Your task to perform on an android device: Open notification settings Image 0: 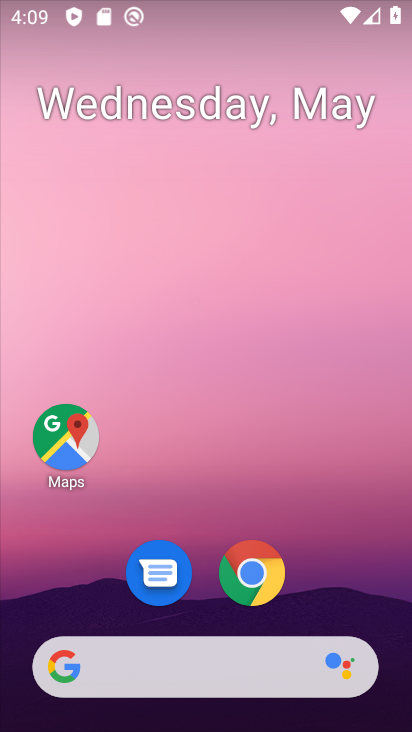
Step 0: drag from (270, 696) to (206, 131)
Your task to perform on an android device: Open notification settings Image 1: 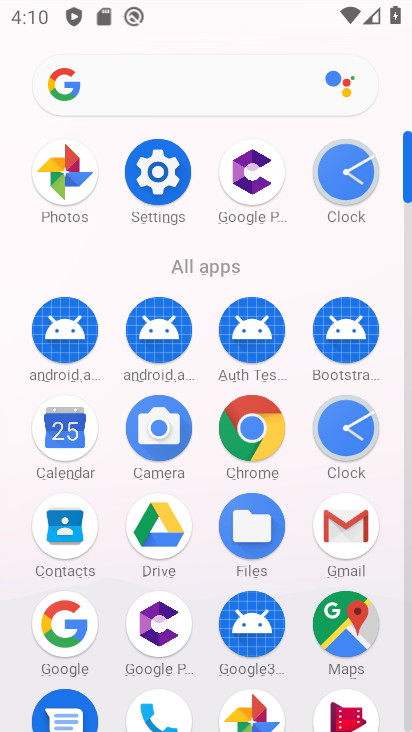
Step 1: click (152, 181)
Your task to perform on an android device: Open notification settings Image 2: 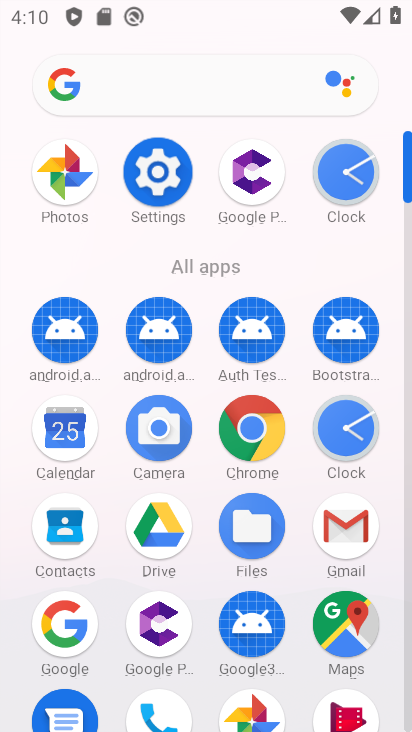
Step 2: click (154, 179)
Your task to perform on an android device: Open notification settings Image 3: 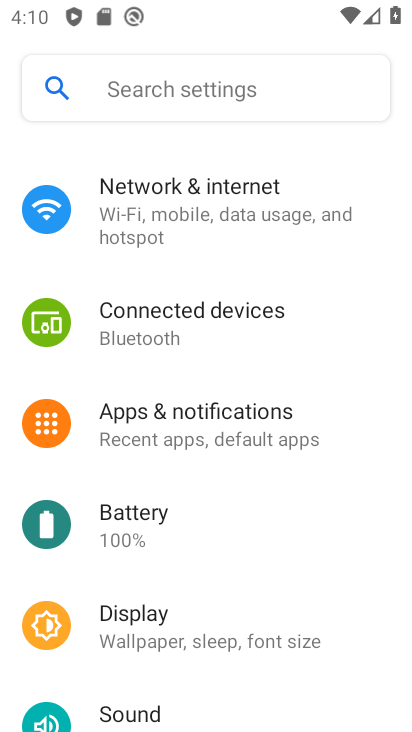
Step 3: click (157, 178)
Your task to perform on an android device: Open notification settings Image 4: 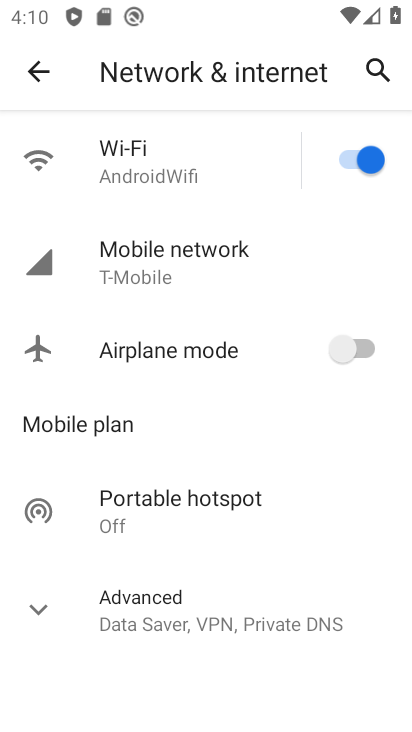
Step 4: click (30, 68)
Your task to perform on an android device: Open notification settings Image 5: 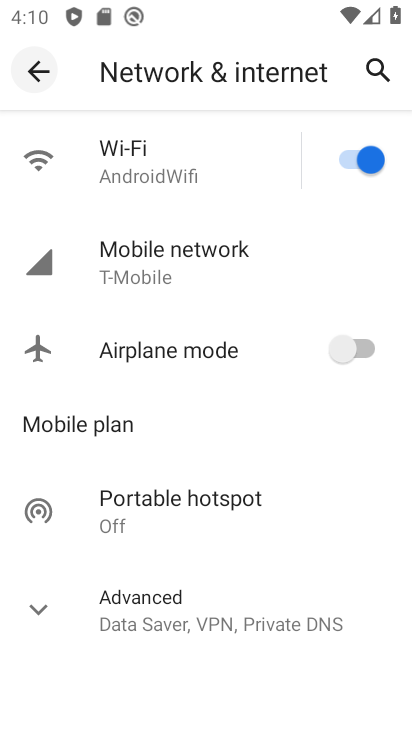
Step 5: click (33, 67)
Your task to perform on an android device: Open notification settings Image 6: 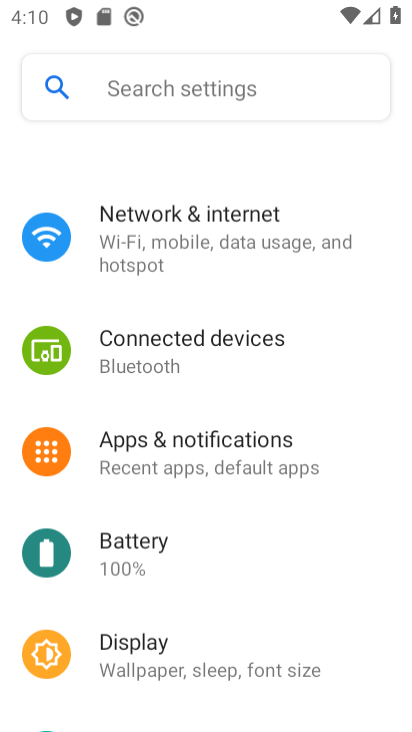
Step 6: click (34, 67)
Your task to perform on an android device: Open notification settings Image 7: 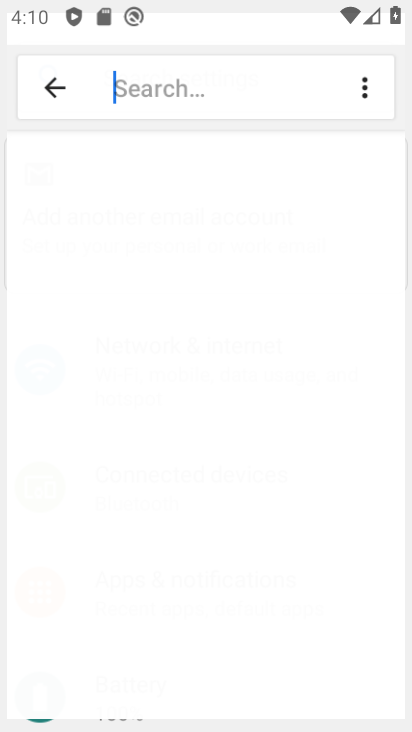
Step 7: click (219, 432)
Your task to perform on an android device: Open notification settings Image 8: 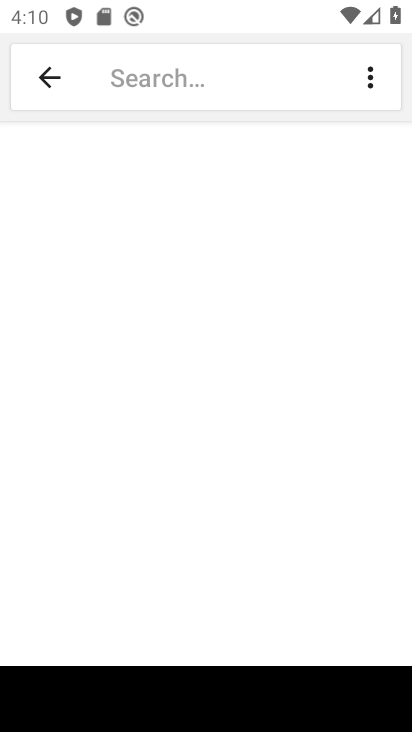
Step 8: click (44, 81)
Your task to perform on an android device: Open notification settings Image 9: 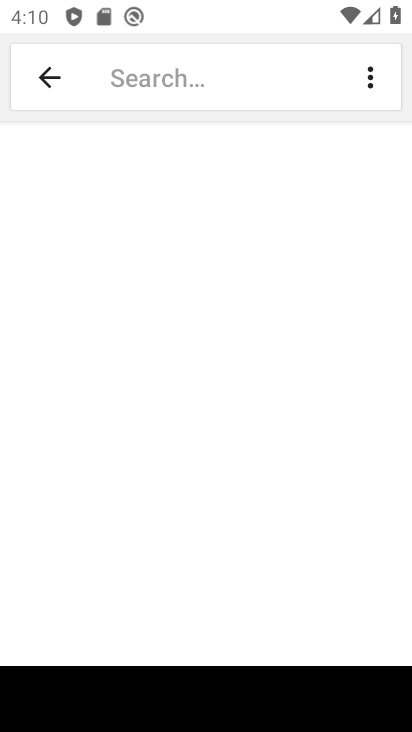
Step 9: click (46, 81)
Your task to perform on an android device: Open notification settings Image 10: 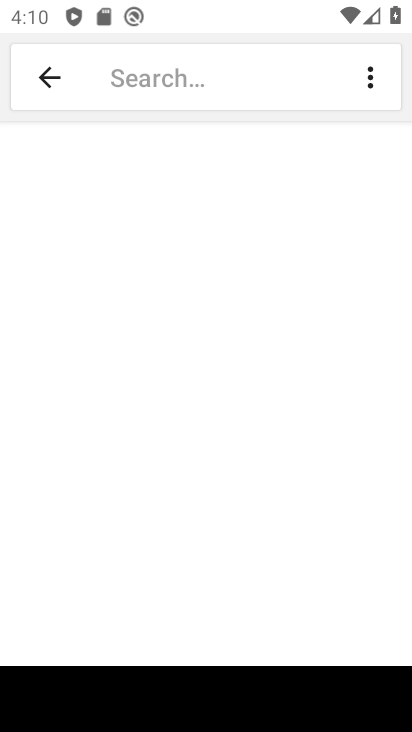
Step 10: click (46, 81)
Your task to perform on an android device: Open notification settings Image 11: 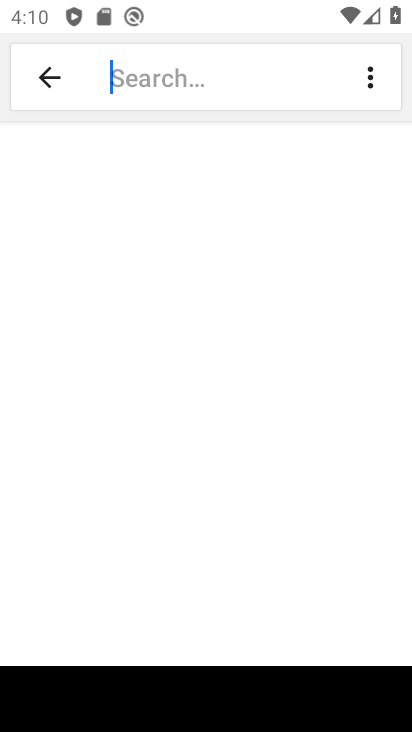
Step 11: click (47, 81)
Your task to perform on an android device: Open notification settings Image 12: 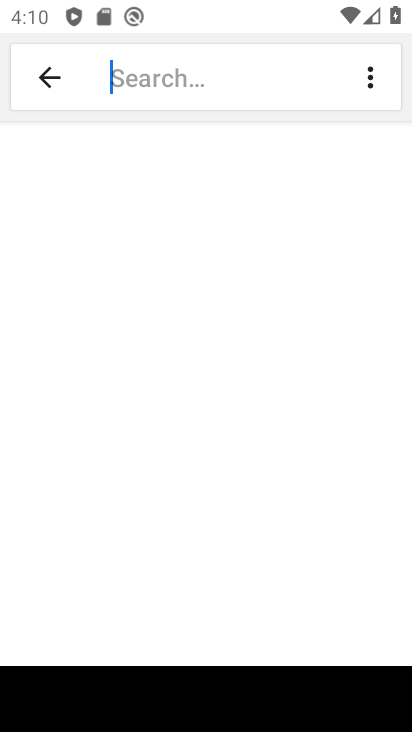
Step 12: click (48, 72)
Your task to perform on an android device: Open notification settings Image 13: 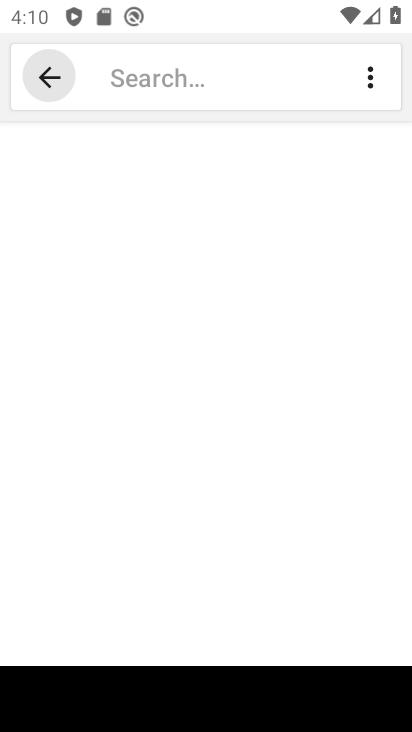
Step 13: click (49, 71)
Your task to perform on an android device: Open notification settings Image 14: 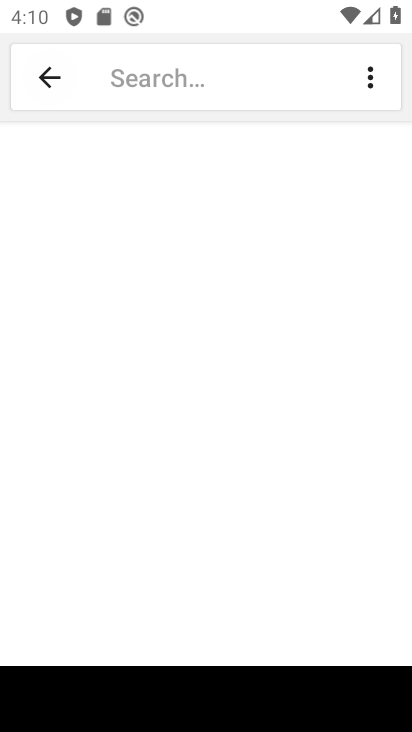
Step 14: click (49, 71)
Your task to perform on an android device: Open notification settings Image 15: 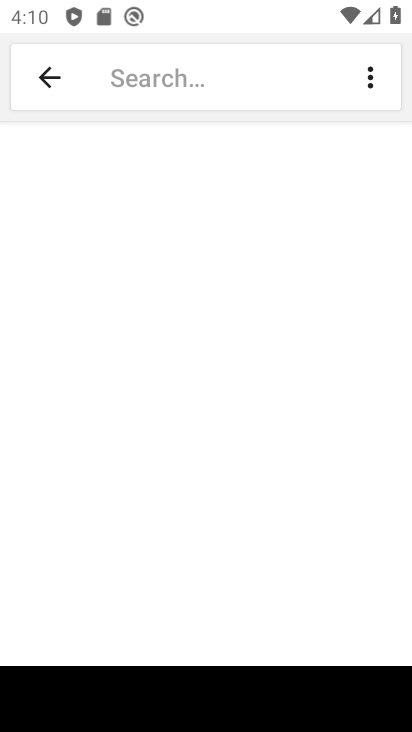
Step 15: click (47, 75)
Your task to perform on an android device: Open notification settings Image 16: 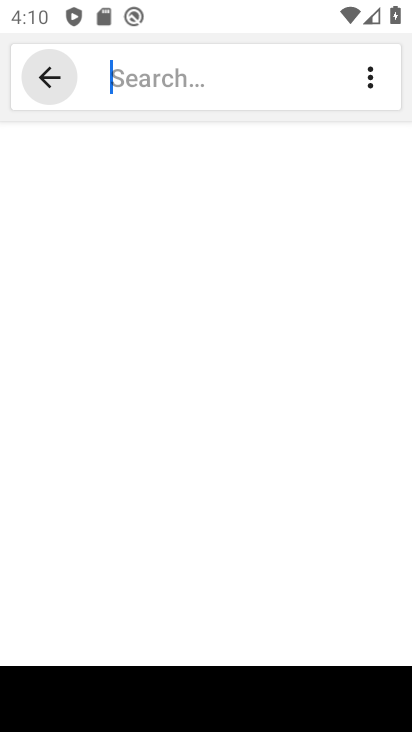
Step 16: click (47, 75)
Your task to perform on an android device: Open notification settings Image 17: 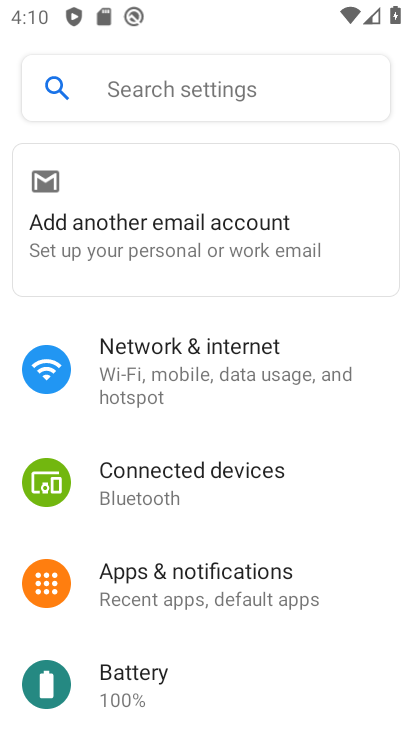
Step 17: click (191, 582)
Your task to perform on an android device: Open notification settings Image 18: 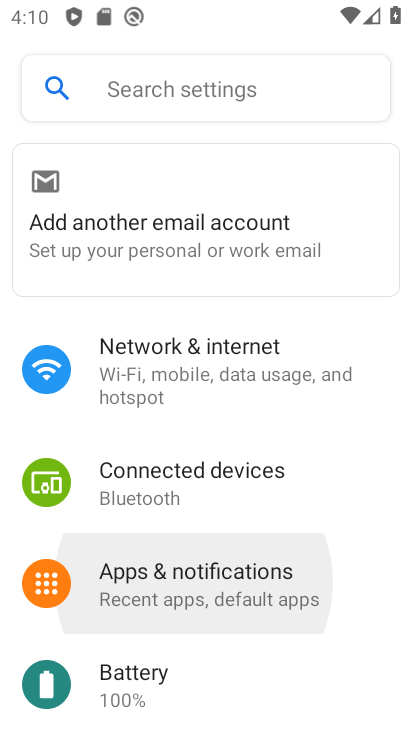
Step 18: click (191, 583)
Your task to perform on an android device: Open notification settings Image 19: 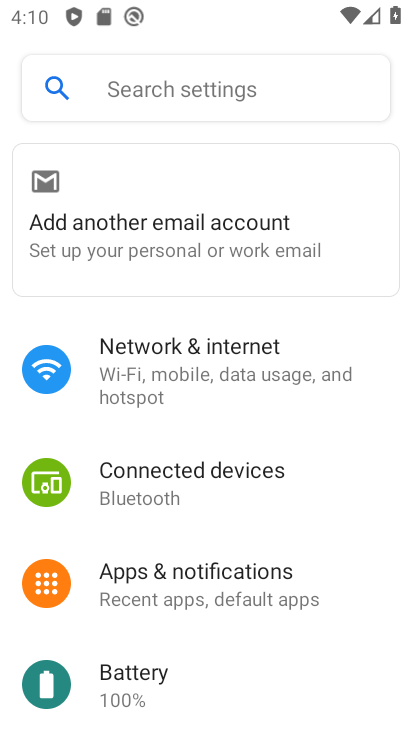
Step 19: click (192, 583)
Your task to perform on an android device: Open notification settings Image 20: 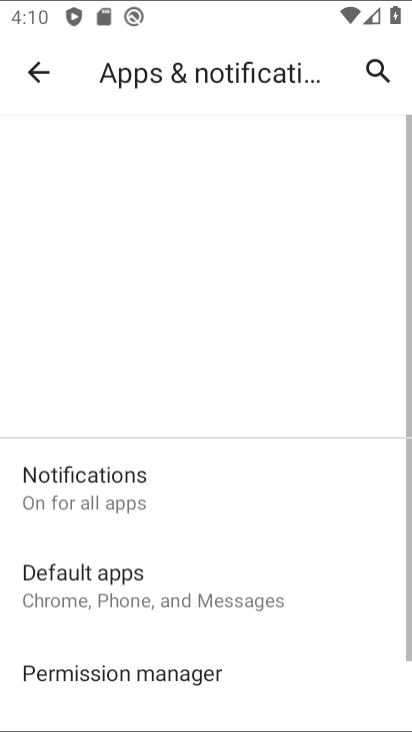
Step 20: click (167, 593)
Your task to perform on an android device: Open notification settings Image 21: 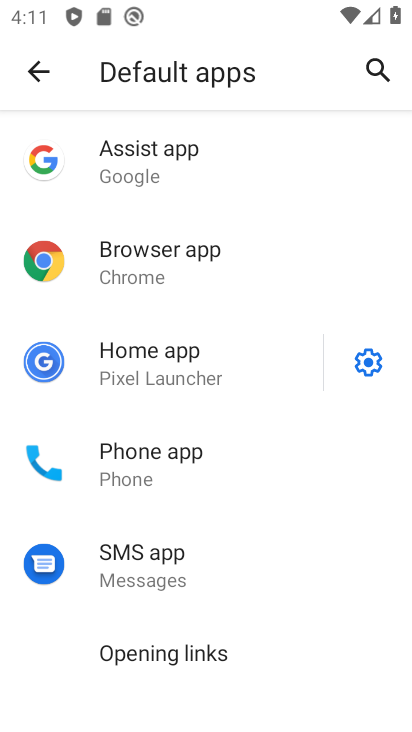
Step 21: click (34, 66)
Your task to perform on an android device: Open notification settings Image 22: 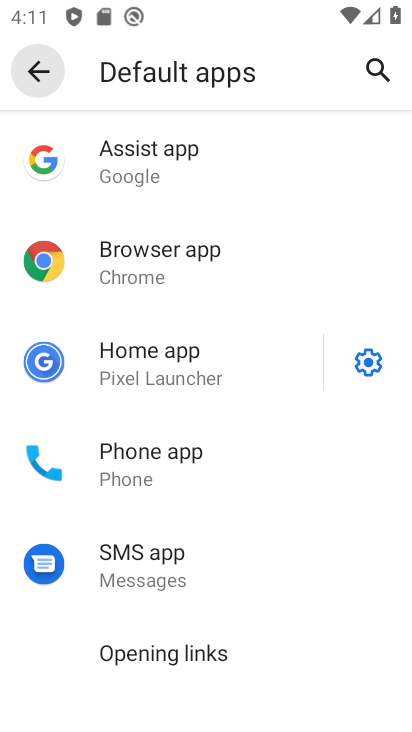
Step 22: click (34, 66)
Your task to perform on an android device: Open notification settings Image 23: 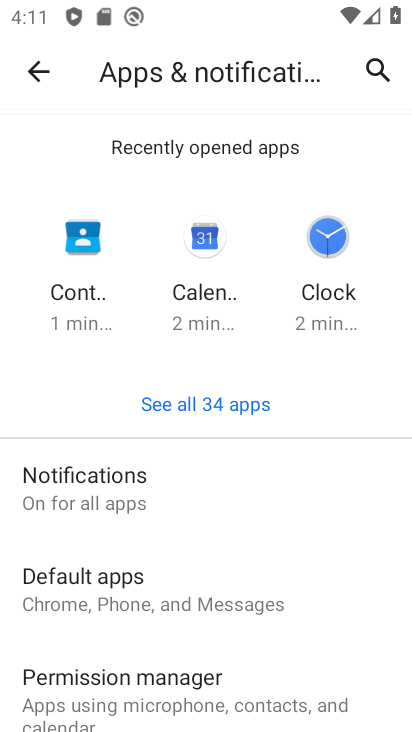
Step 23: task complete